Your task to perform on an android device: search for starred emails in the gmail app Image 0: 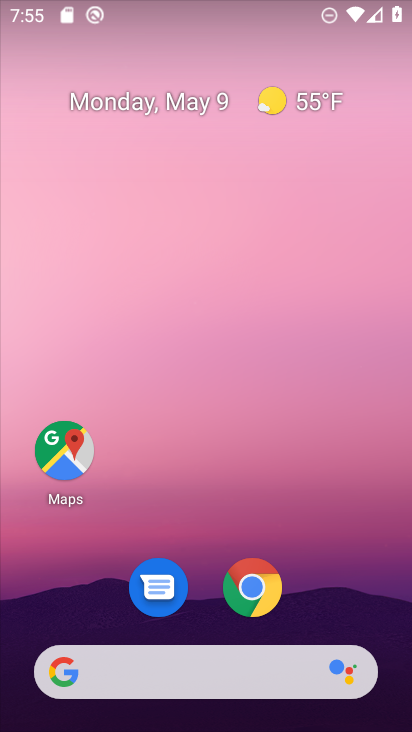
Step 0: drag from (183, 631) to (97, 3)
Your task to perform on an android device: search for starred emails in the gmail app Image 1: 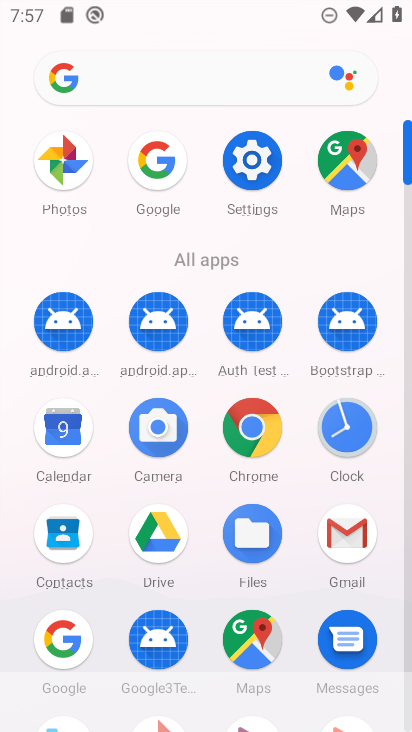
Step 1: click (346, 551)
Your task to perform on an android device: search for starred emails in the gmail app Image 2: 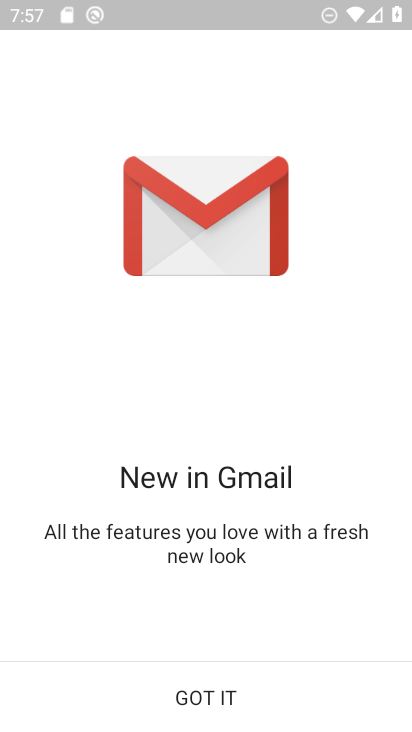
Step 2: click (170, 714)
Your task to perform on an android device: search for starred emails in the gmail app Image 3: 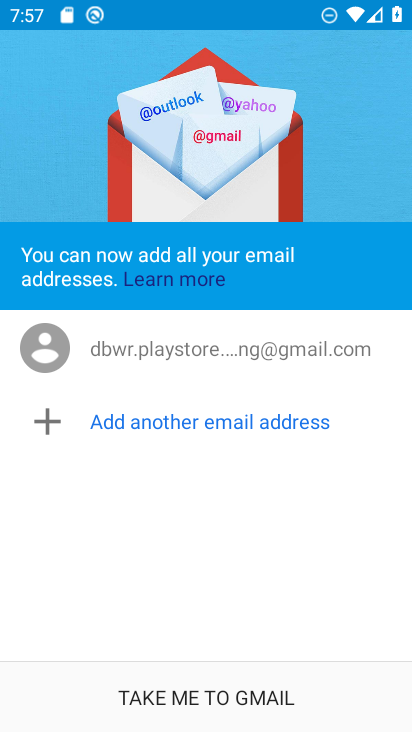
Step 3: click (173, 697)
Your task to perform on an android device: search for starred emails in the gmail app Image 4: 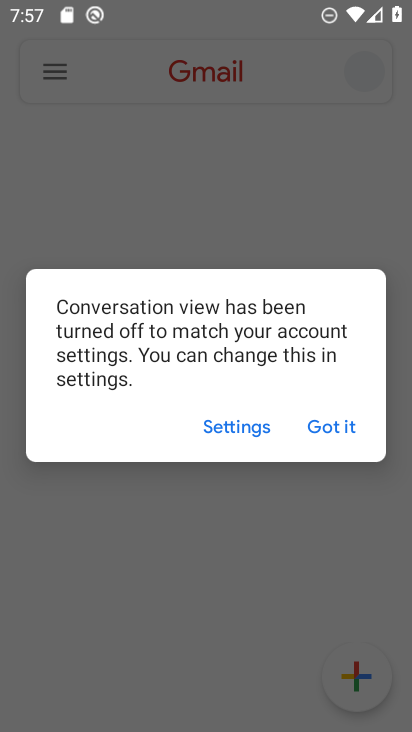
Step 4: click (309, 426)
Your task to perform on an android device: search for starred emails in the gmail app Image 5: 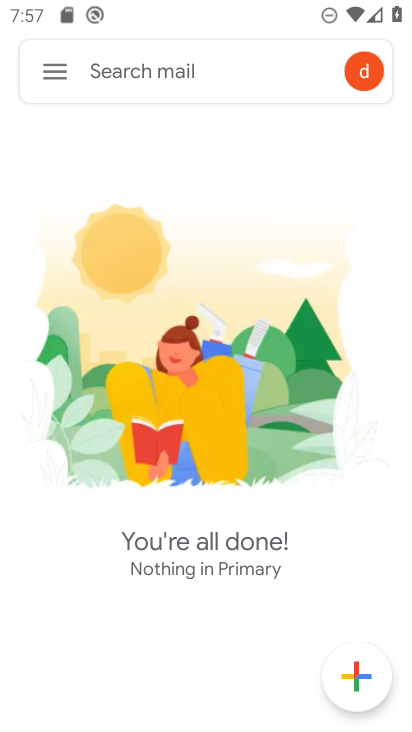
Step 5: click (50, 63)
Your task to perform on an android device: search for starred emails in the gmail app Image 6: 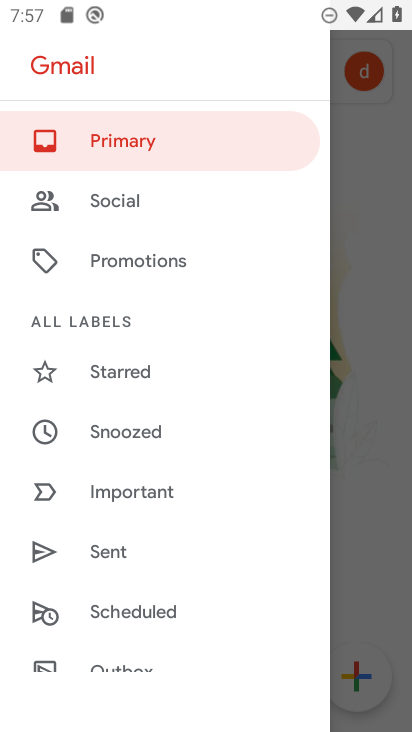
Step 6: click (126, 382)
Your task to perform on an android device: search for starred emails in the gmail app Image 7: 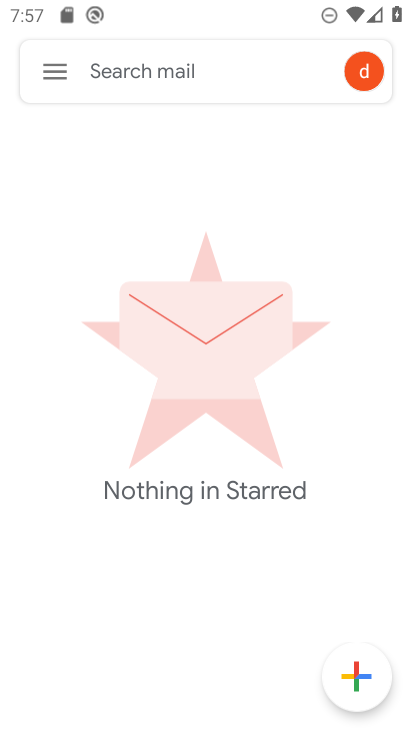
Step 7: task complete